Your task to perform on an android device: Go to eBay Image 0: 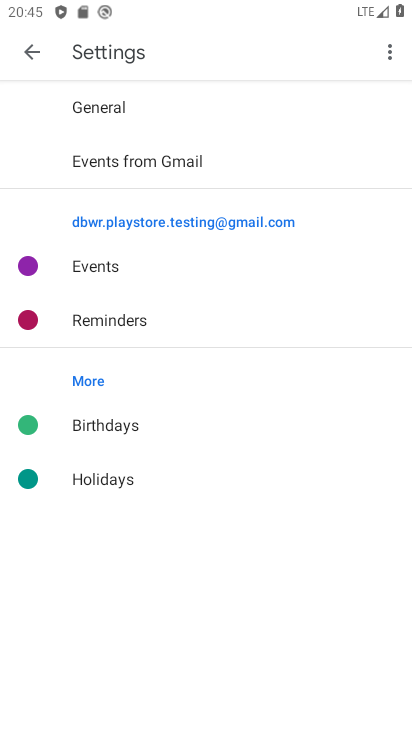
Step 0: press home button
Your task to perform on an android device: Go to eBay Image 1: 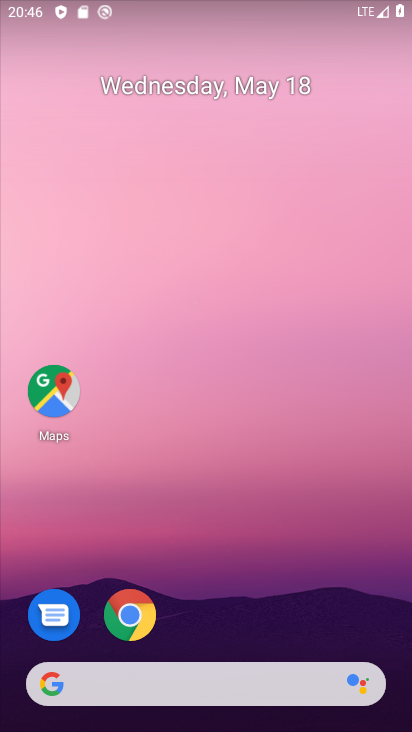
Step 1: click (139, 613)
Your task to perform on an android device: Go to eBay Image 2: 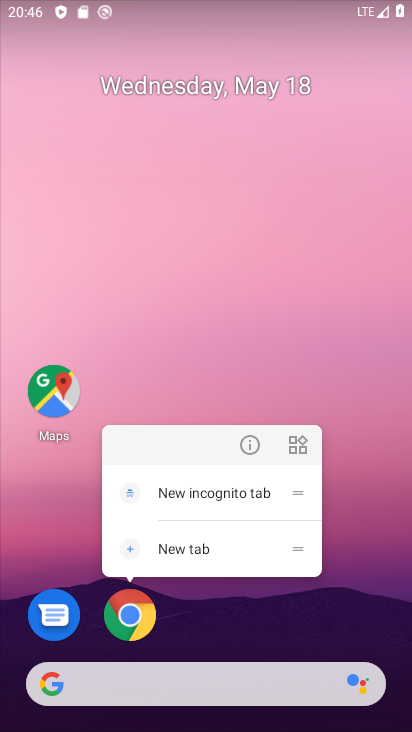
Step 2: click (144, 614)
Your task to perform on an android device: Go to eBay Image 3: 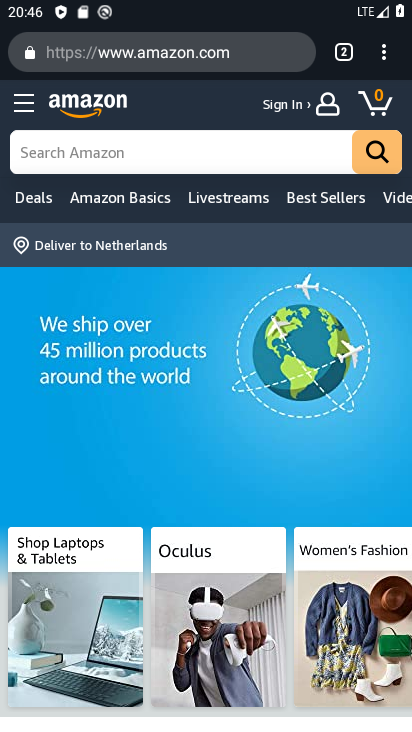
Step 3: click (155, 50)
Your task to perform on an android device: Go to eBay Image 4: 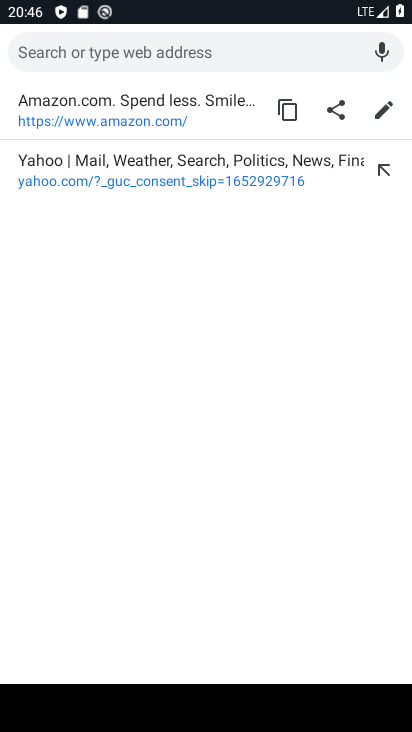
Step 4: type "ebay"
Your task to perform on an android device: Go to eBay Image 5: 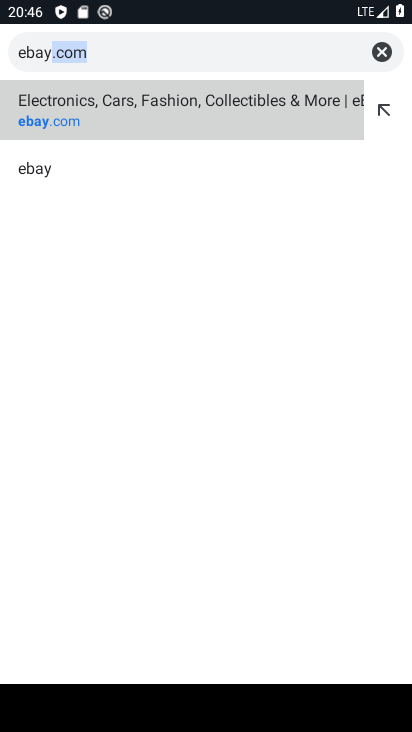
Step 5: click (109, 114)
Your task to perform on an android device: Go to eBay Image 6: 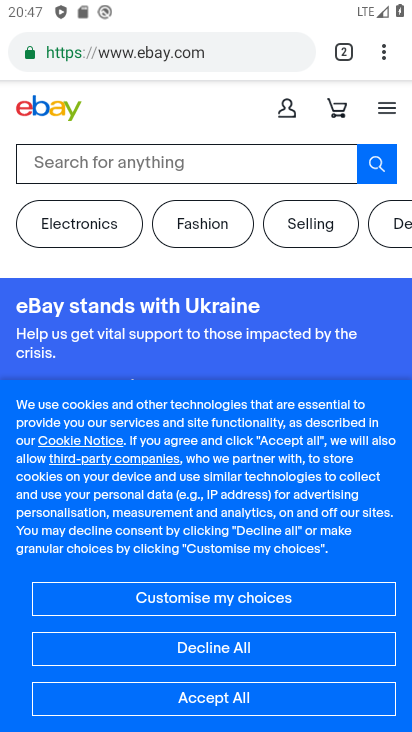
Step 6: task complete